Your task to perform on an android device: Add "razer thresher" to the cart on ebay.com, then select checkout. Image 0: 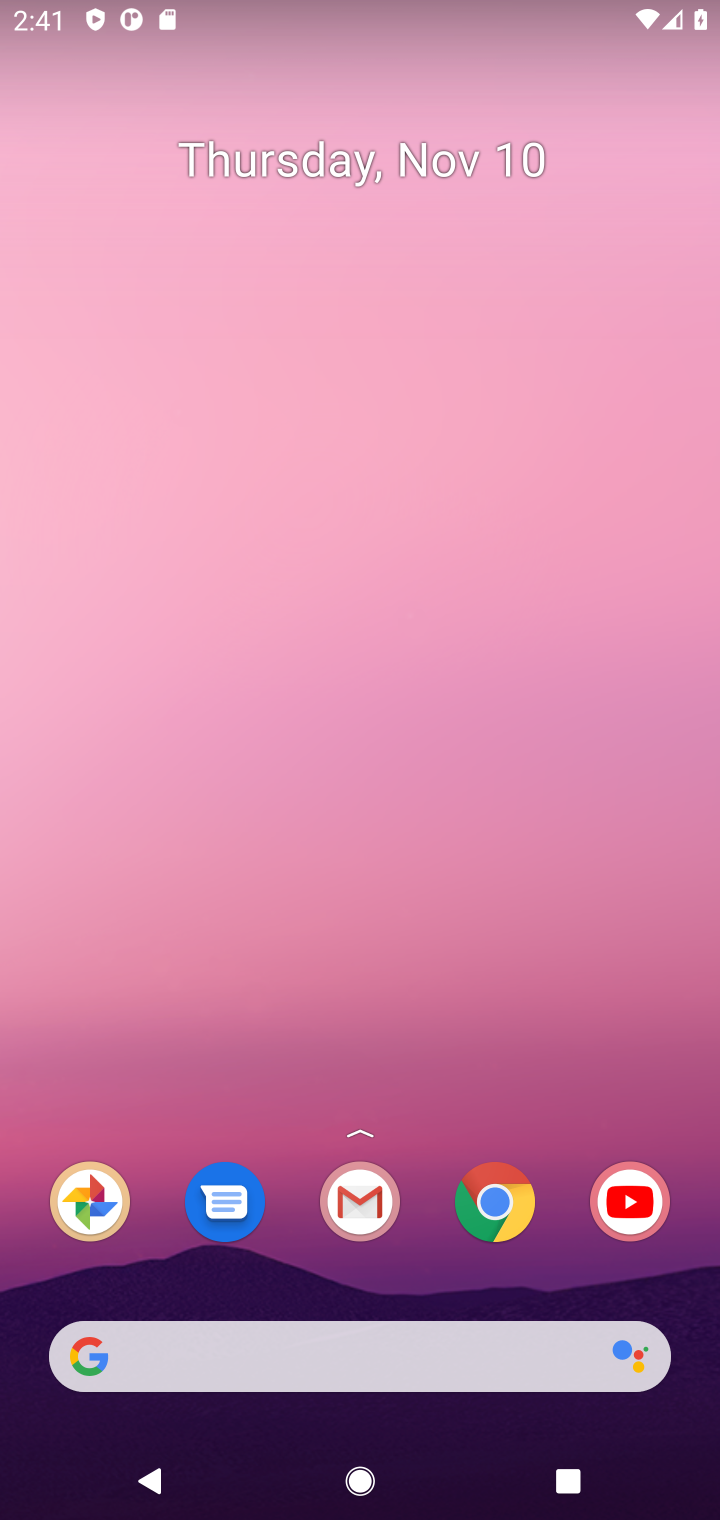
Step 0: click (496, 1210)
Your task to perform on an android device: Add "razer thresher" to the cart on ebay.com, then select checkout. Image 1: 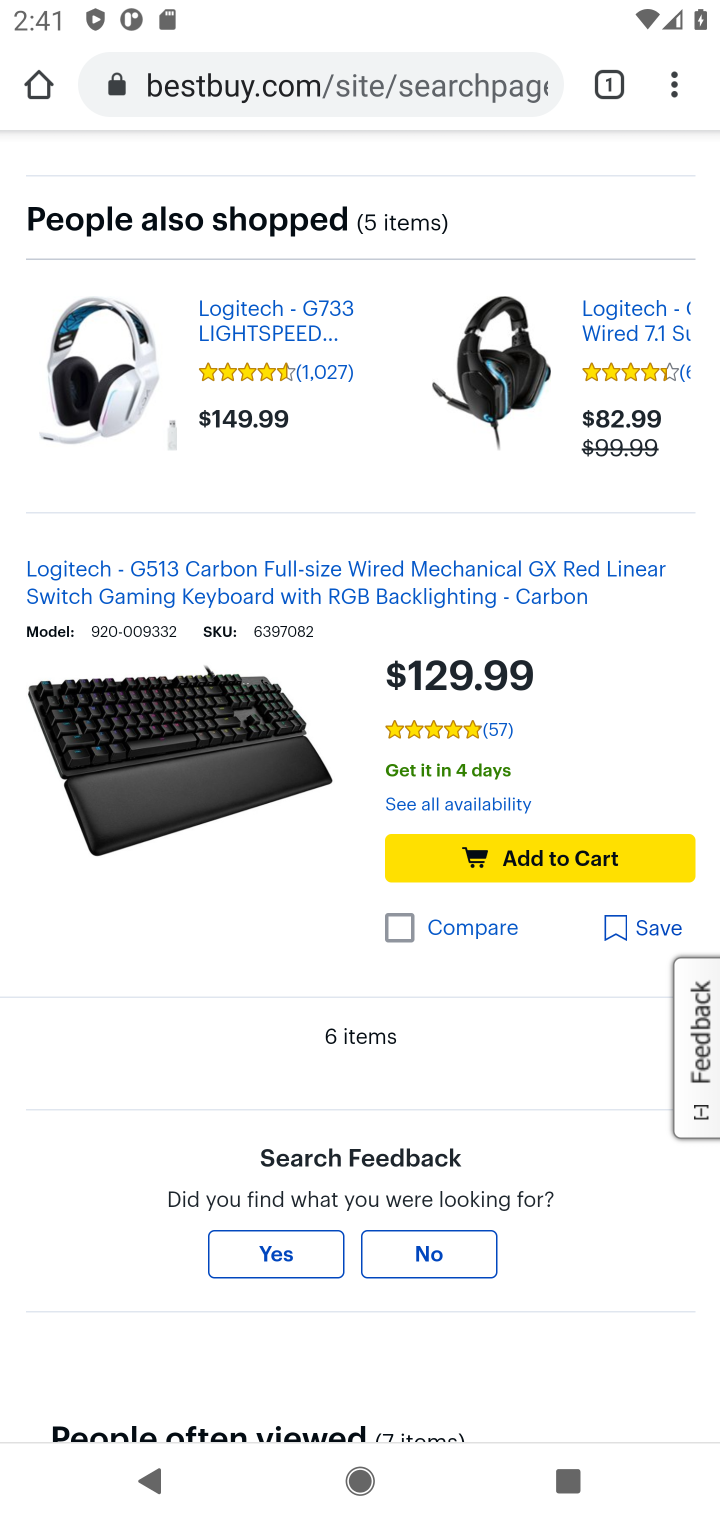
Step 1: click (354, 91)
Your task to perform on an android device: Add "razer thresher" to the cart on ebay.com, then select checkout. Image 2: 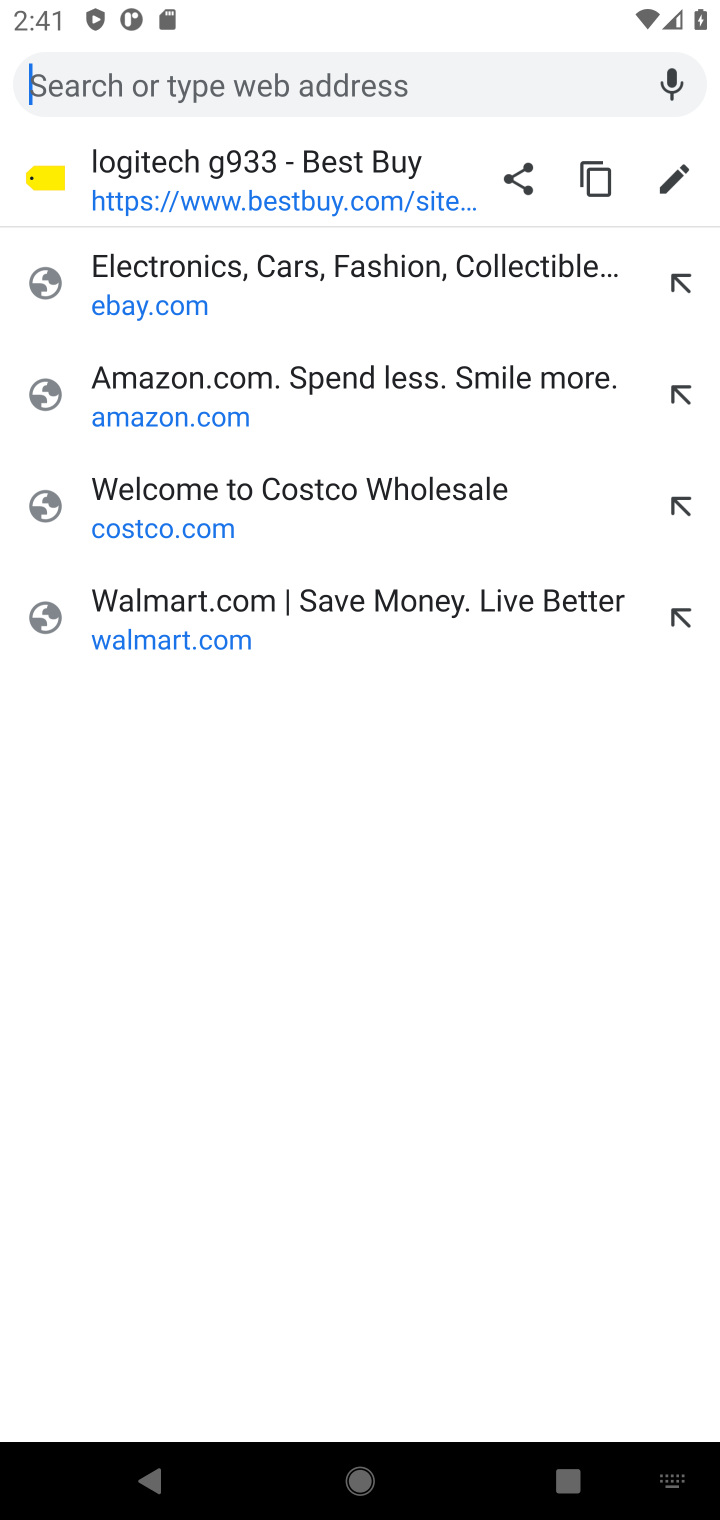
Step 2: type "ebay.com"
Your task to perform on an android device: Add "razer thresher" to the cart on ebay.com, then select checkout. Image 3: 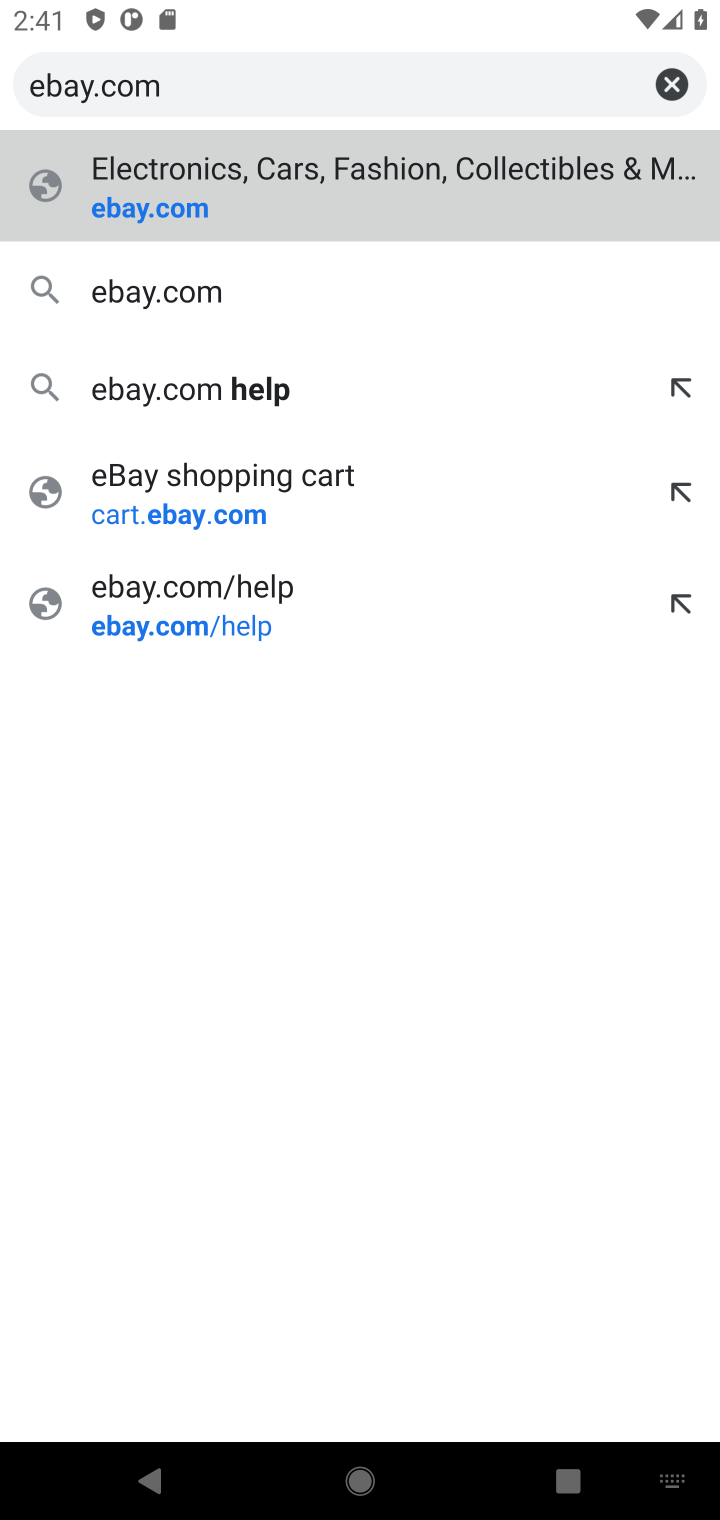
Step 3: press enter
Your task to perform on an android device: Add "razer thresher" to the cart on ebay.com, then select checkout. Image 4: 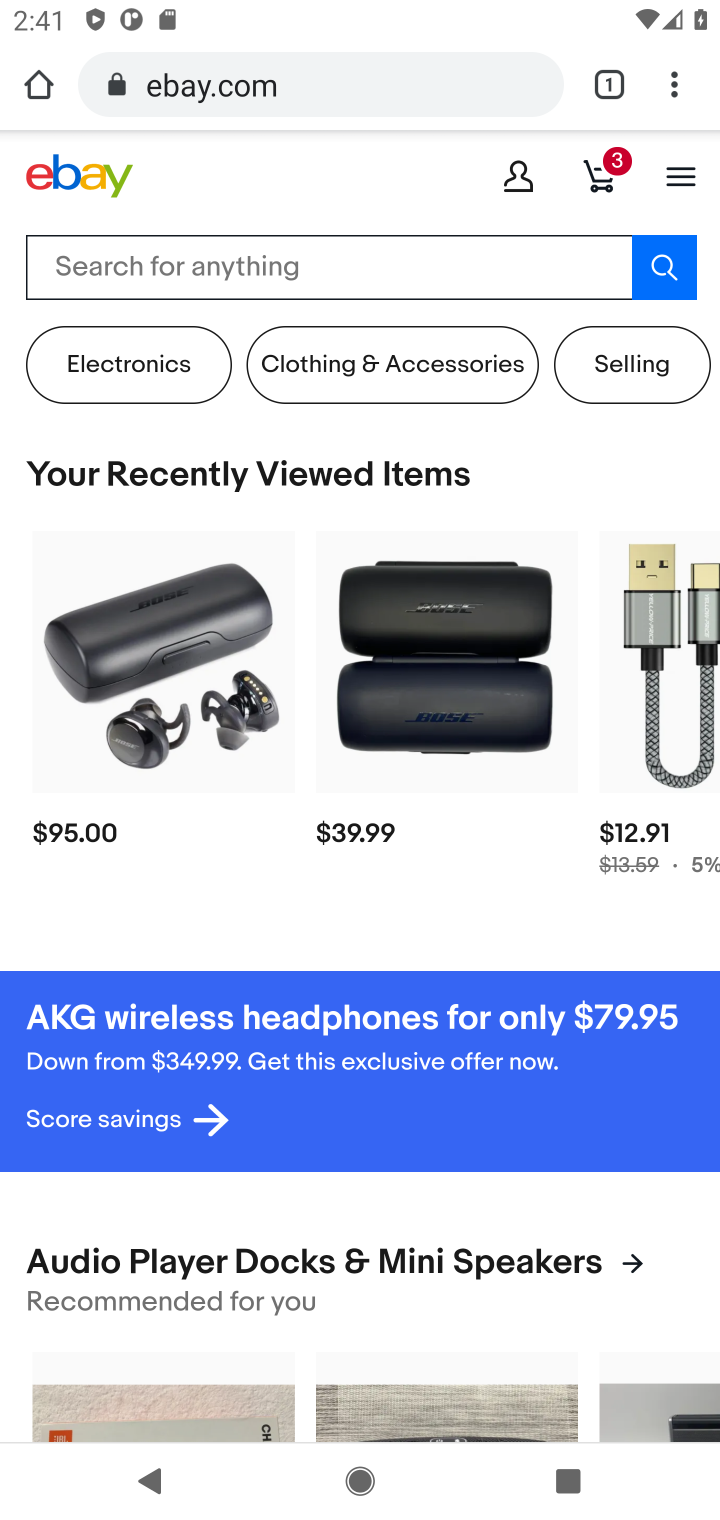
Step 4: click (524, 271)
Your task to perform on an android device: Add "razer thresher" to the cart on ebay.com, then select checkout. Image 5: 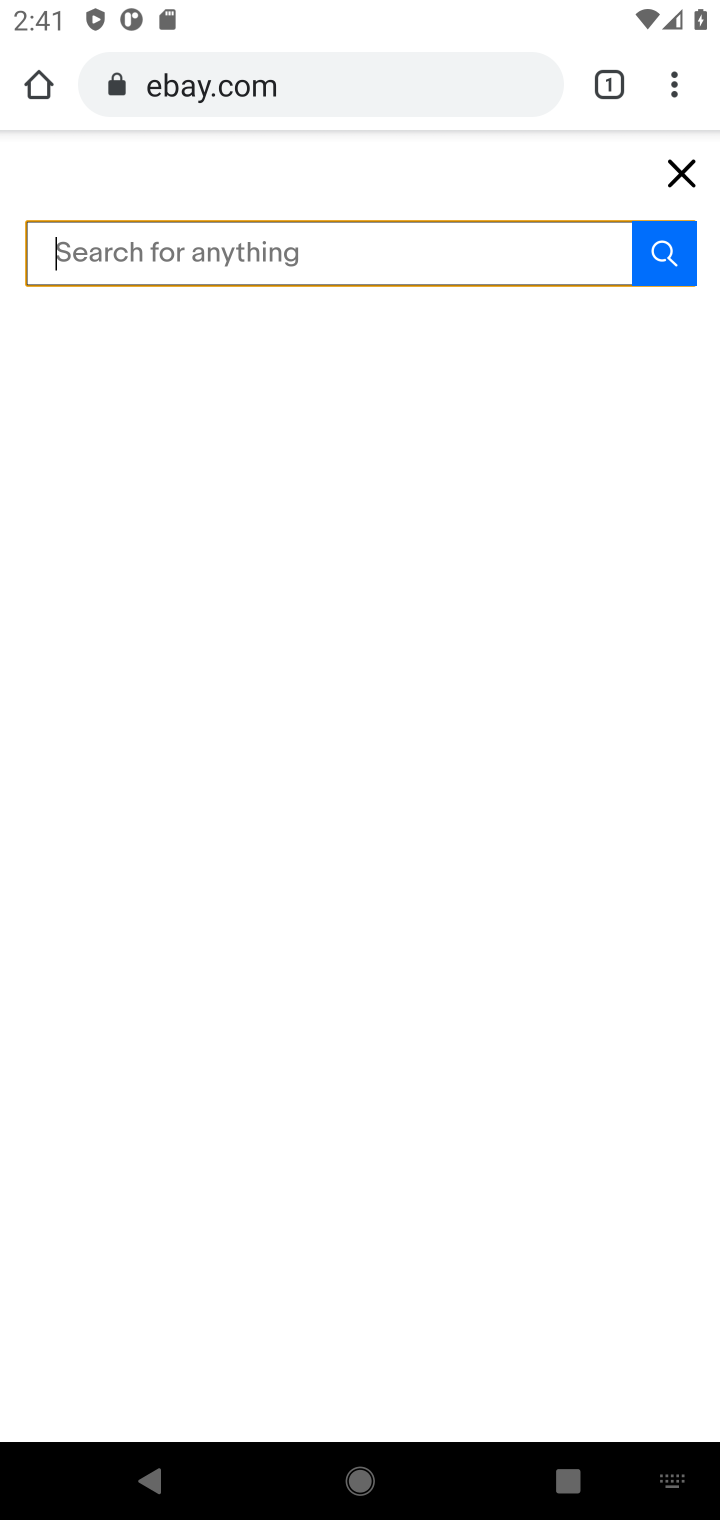
Step 5: type "razer thresher"
Your task to perform on an android device: Add "razer thresher" to the cart on ebay.com, then select checkout. Image 6: 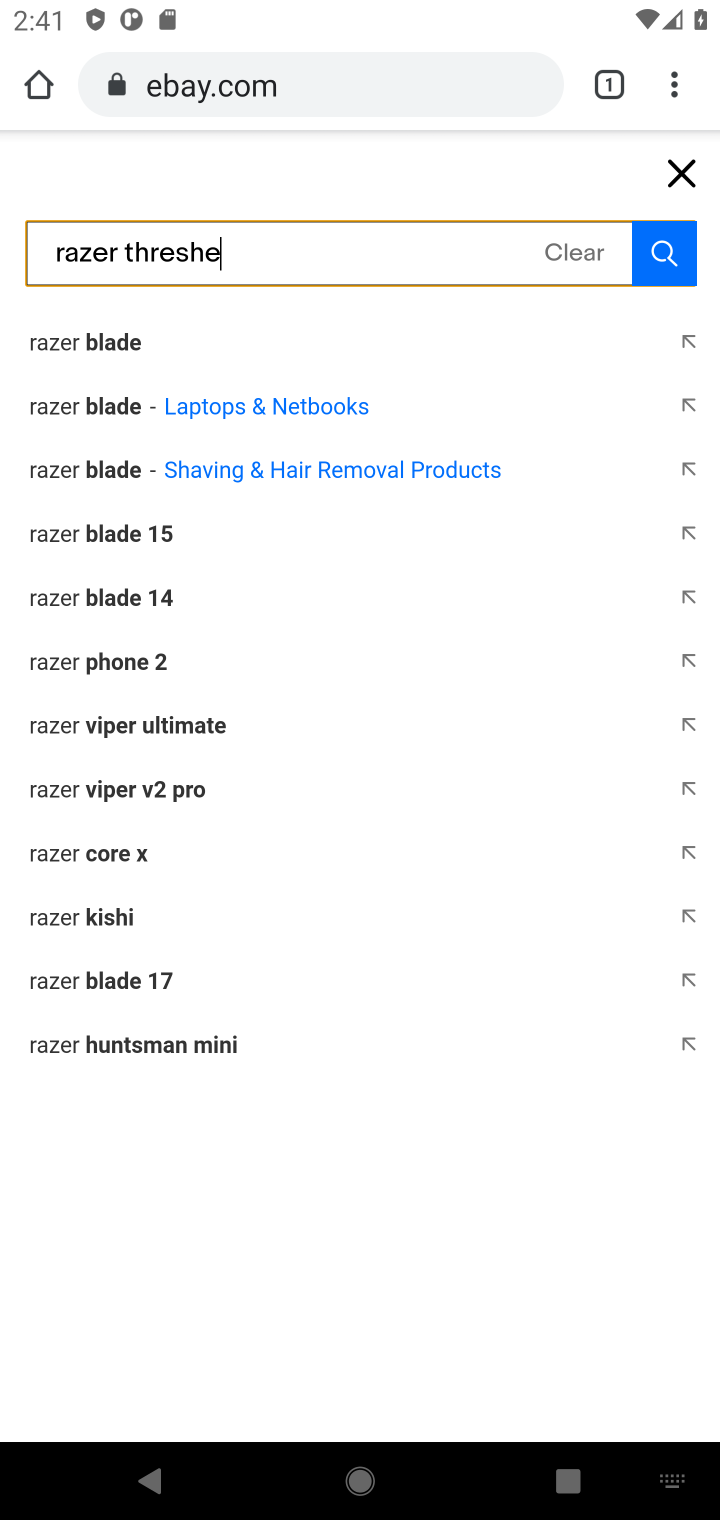
Step 6: press enter
Your task to perform on an android device: Add "razer thresher" to the cart on ebay.com, then select checkout. Image 7: 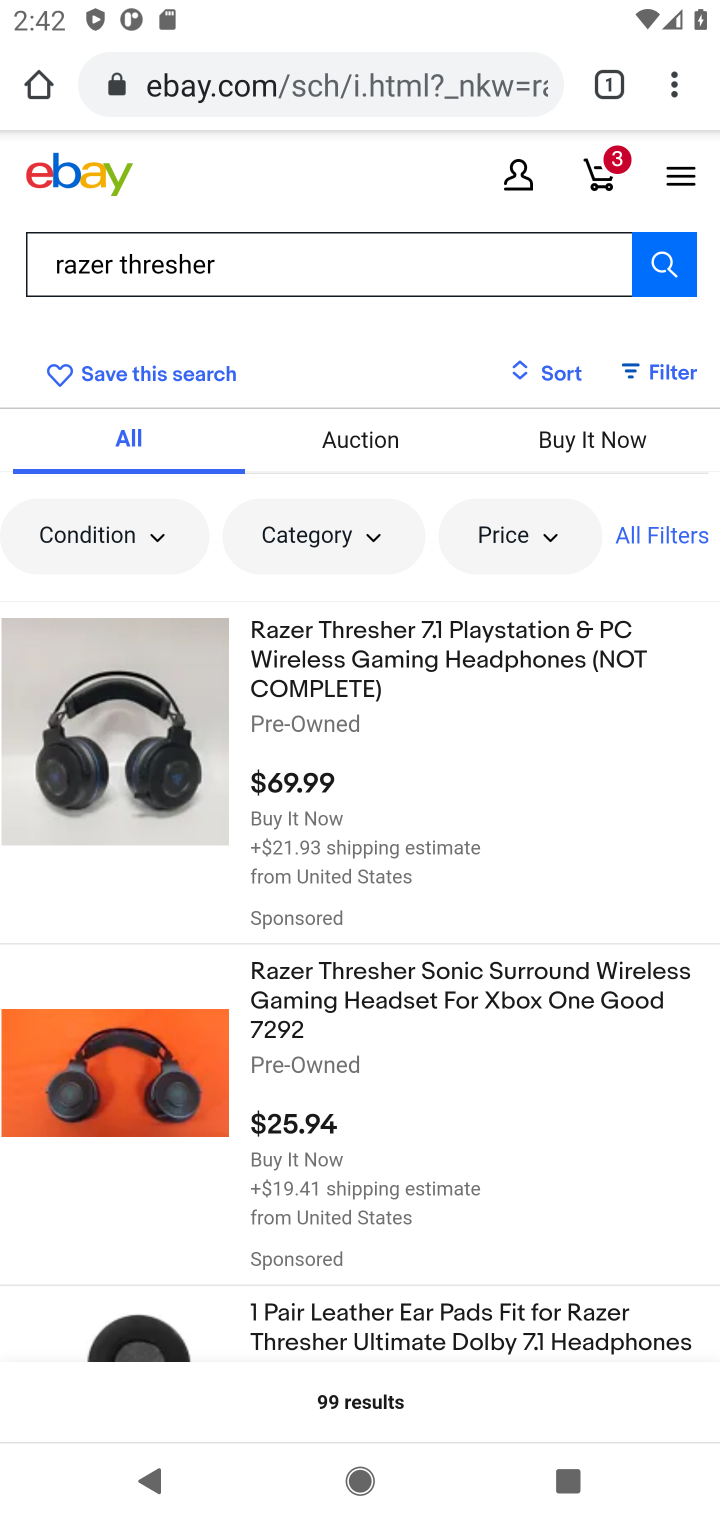
Step 7: click (130, 680)
Your task to perform on an android device: Add "razer thresher" to the cart on ebay.com, then select checkout. Image 8: 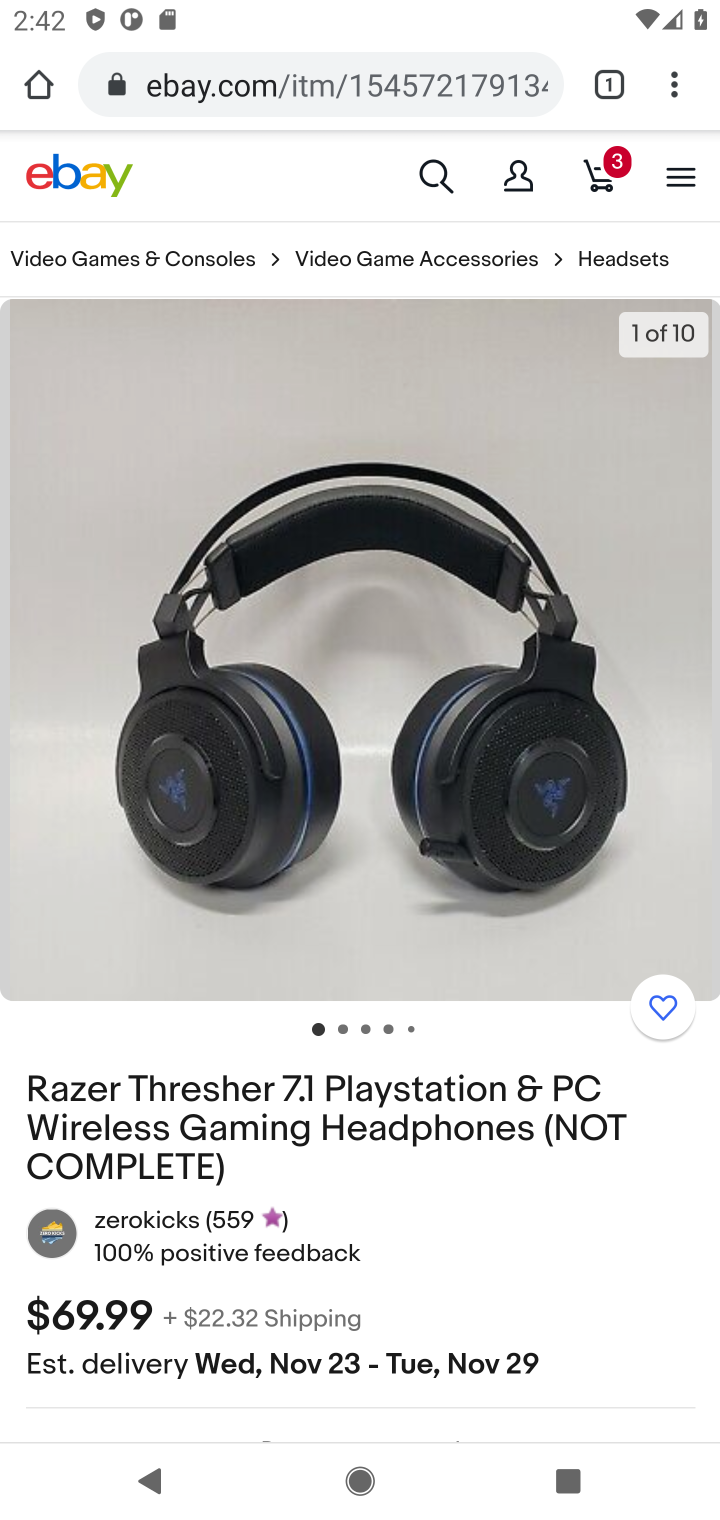
Step 8: drag from (343, 950) to (460, 569)
Your task to perform on an android device: Add "razer thresher" to the cart on ebay.com, then select checkout. Image 9: 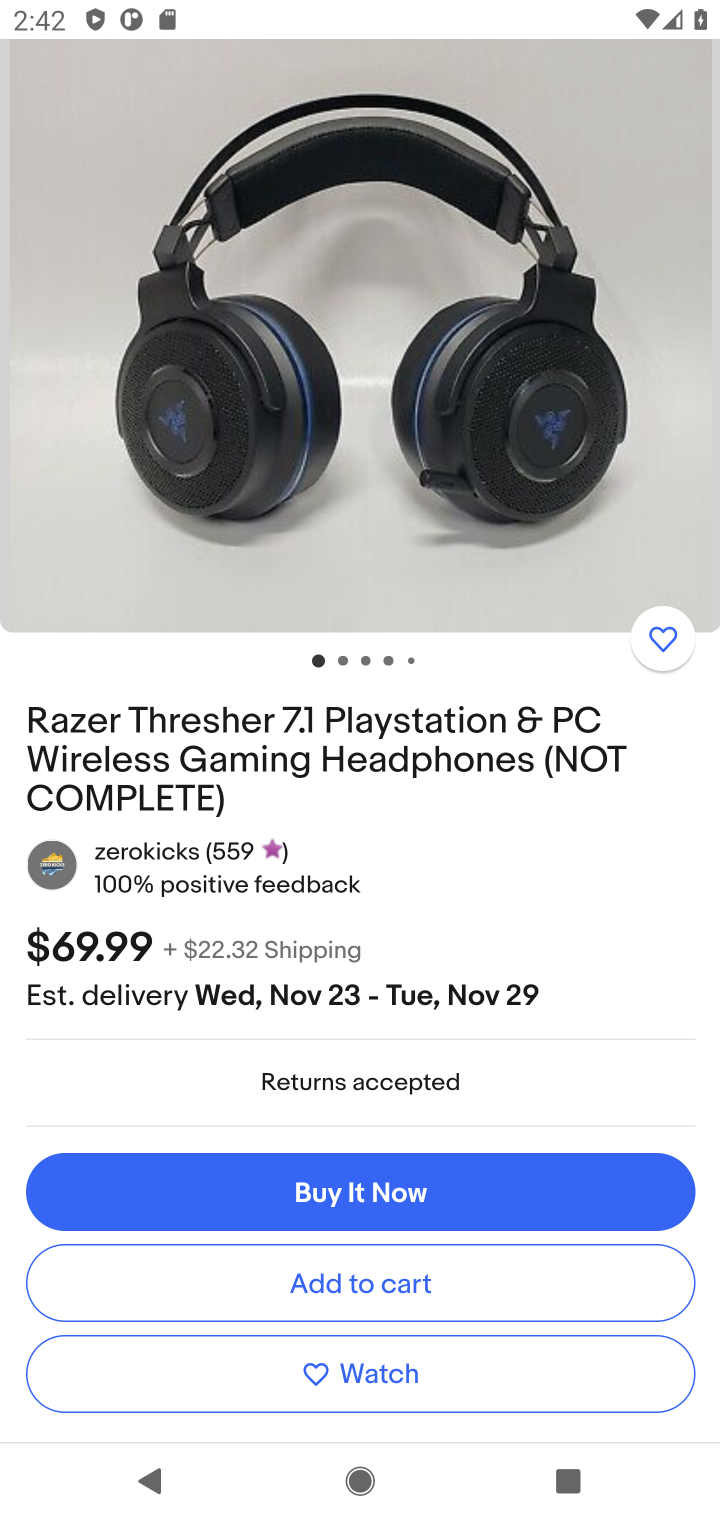
Step 9: click (323, 1276)
Your task to perform on an android device: Add "razer thresher" to the cart on ebay.com, then select checkout. Image 10: 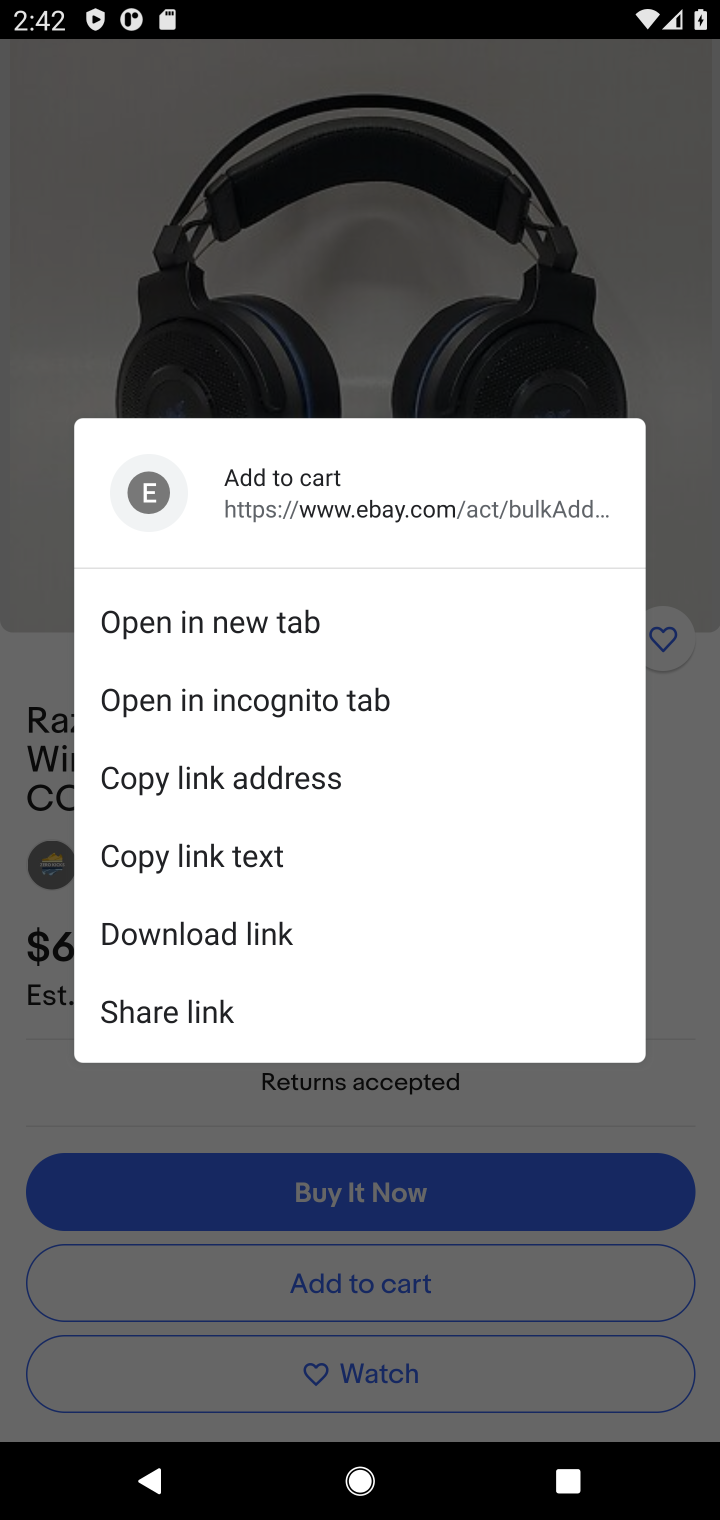
Step 10: click (323, 1276)
Your task to perform on an android device: Add "razer thresher" to the cart on ebay.com, then select checkout. Image 11: 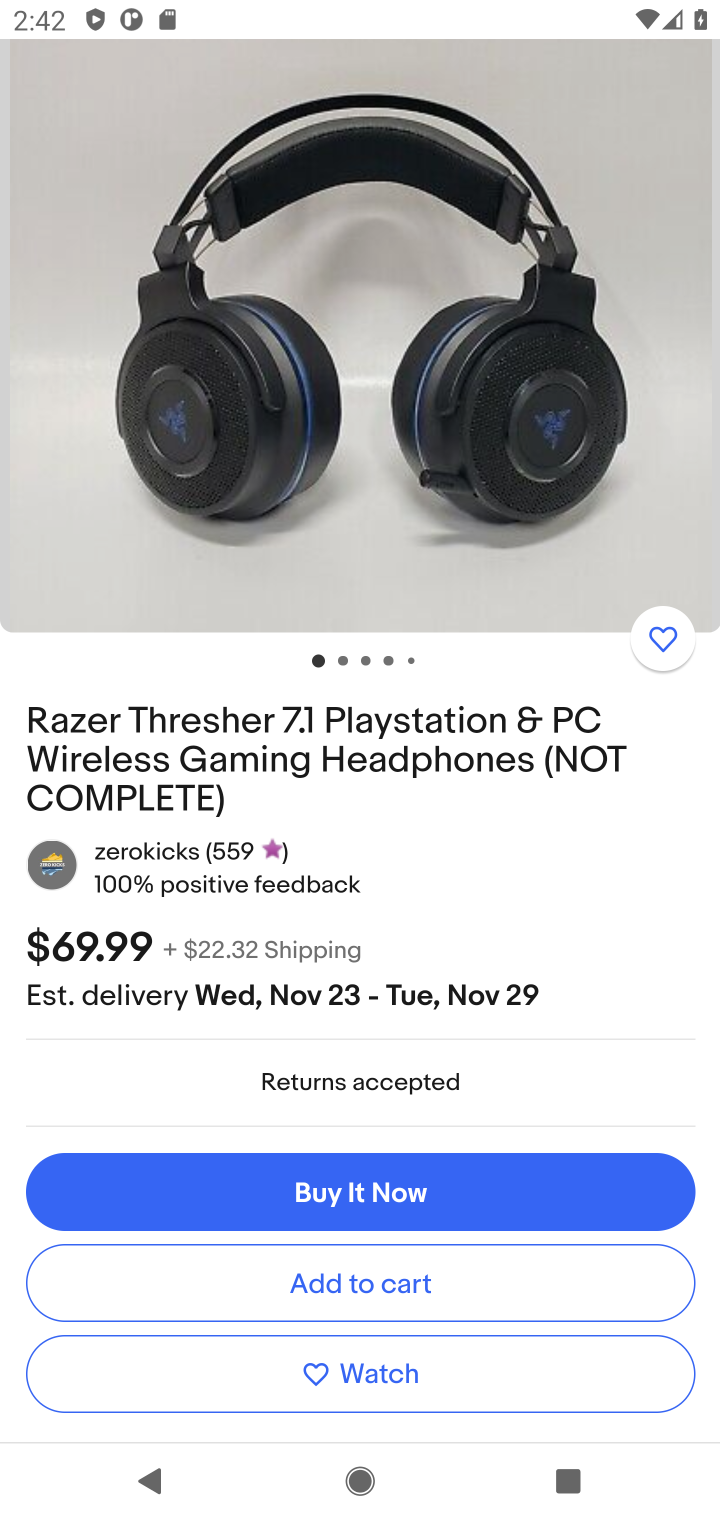
Step 11: click (323, 1276)
Your task to perform on an android device: Add "razer thresher" to the cart on ebay.com, then select checkout. Image 12: 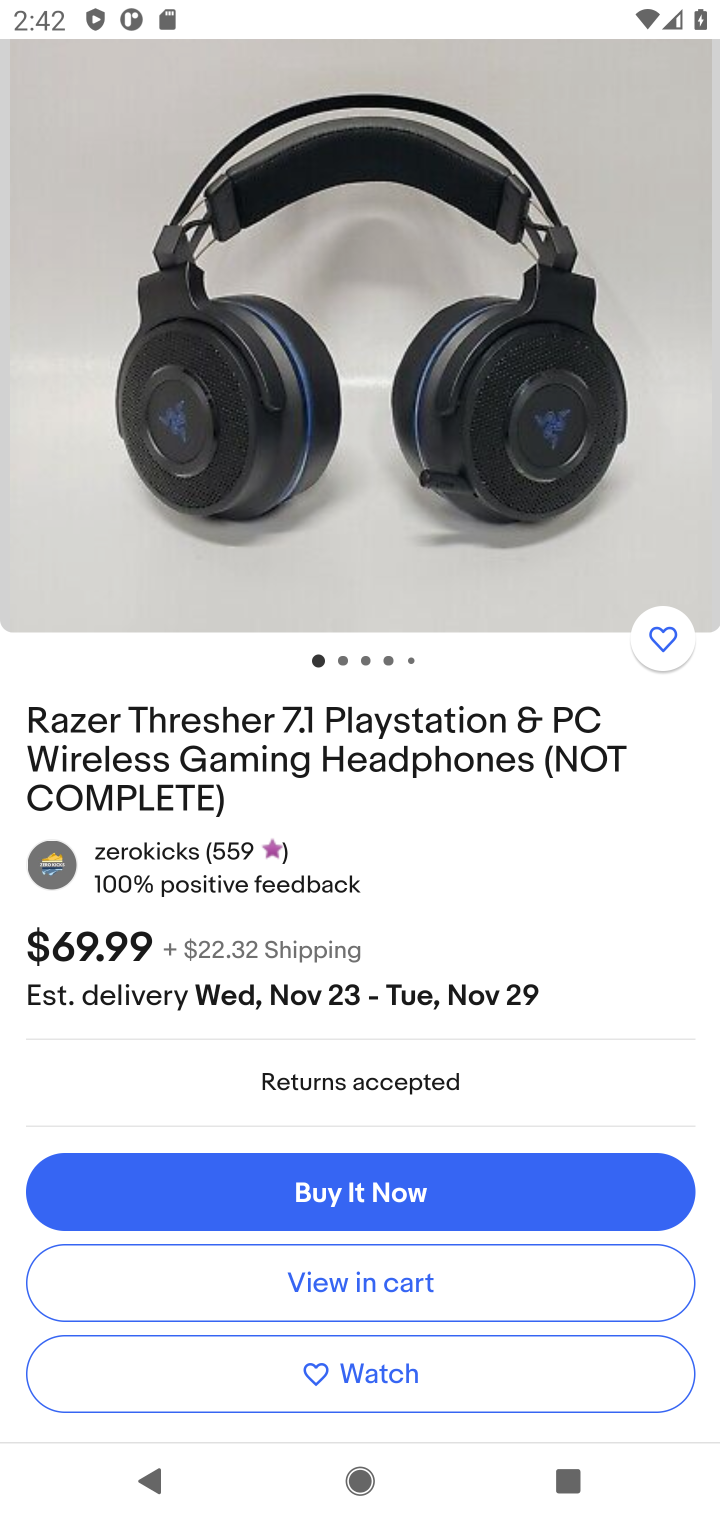
Step 12: click (323, 1276)
Your task to perform on an android device: Add "razer thresher" to the cart on ebay.com, then select checkout. Image 13: 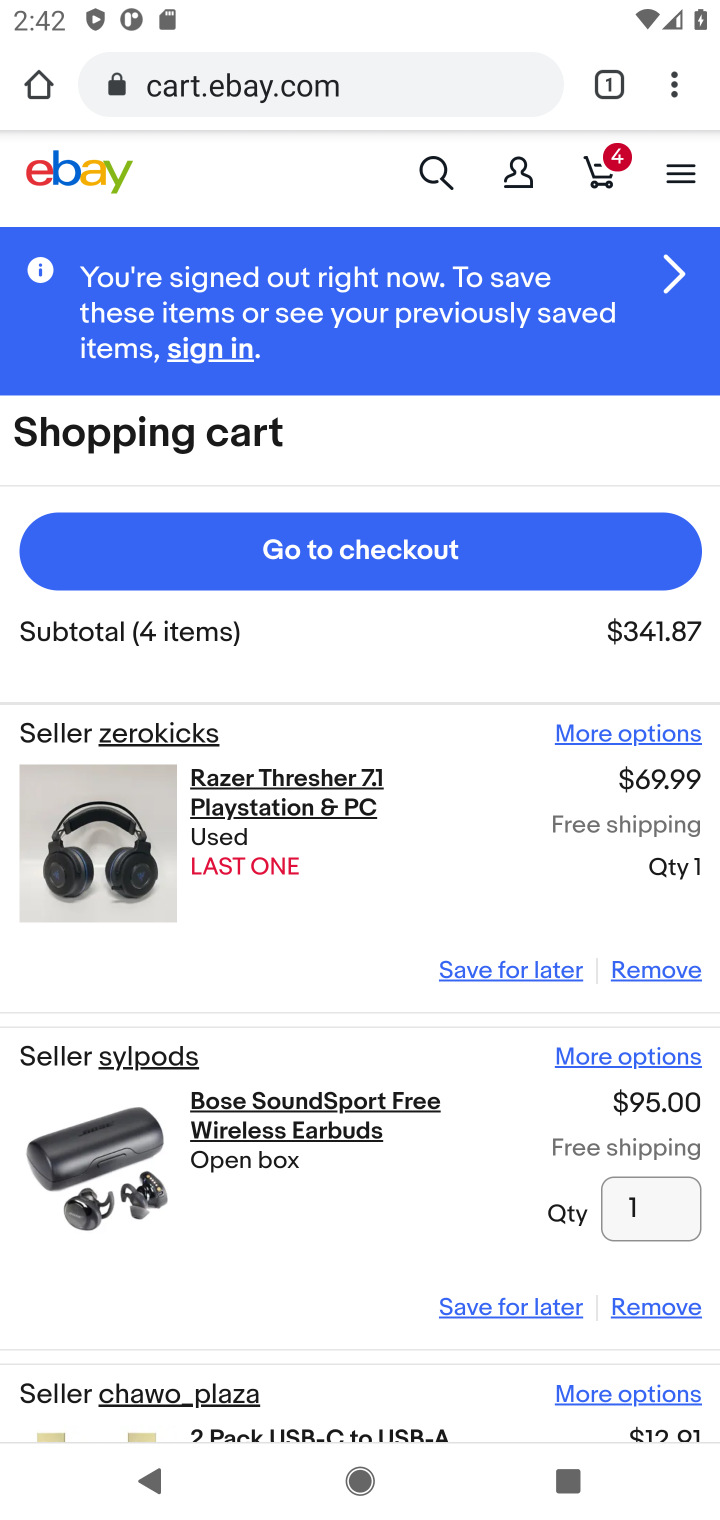
Step 13: click (471, 555)
Your task to perform on an android device: Add "razer thresher" to the cart on ebay.com, then select checkout. Image 14: 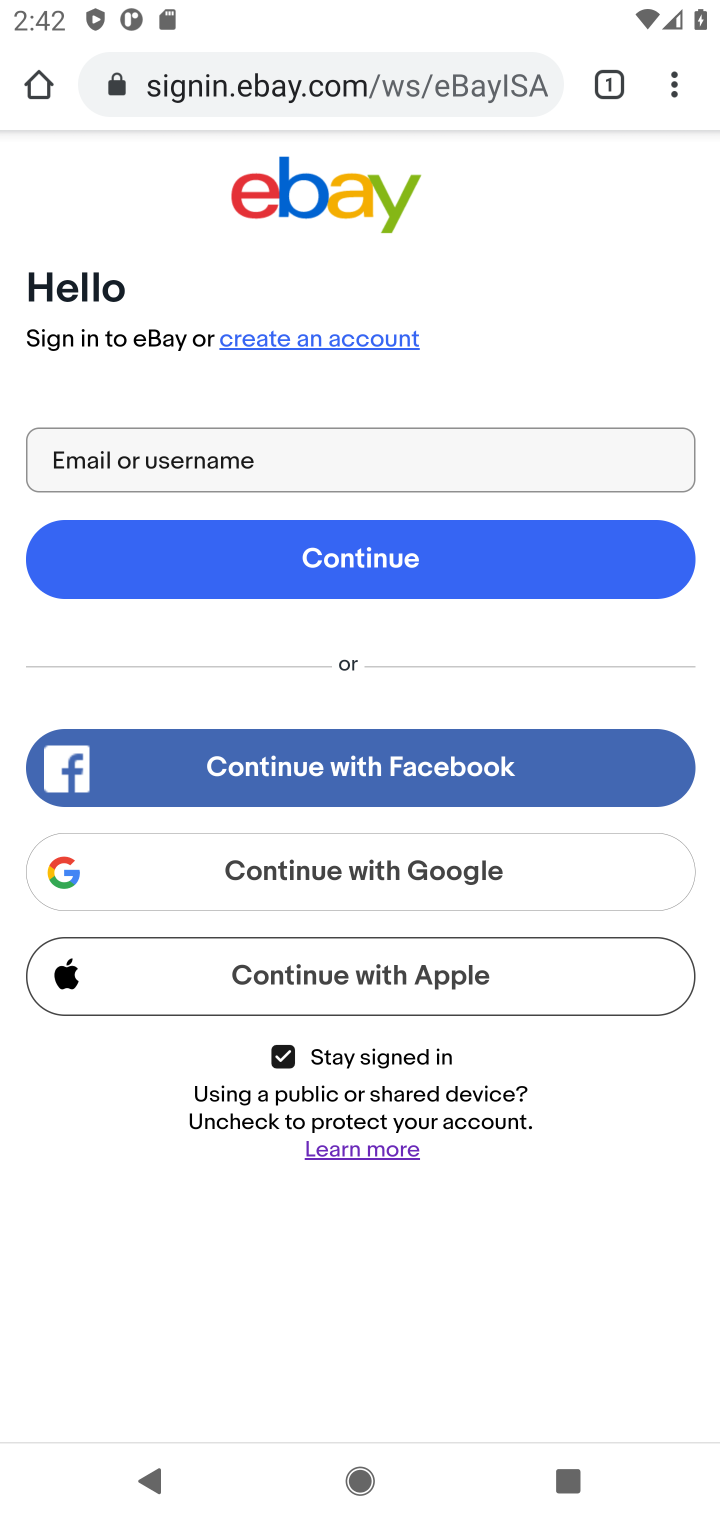
Step 14: task complete